Your task to perform on an android device: Go to sound settings Image 0: 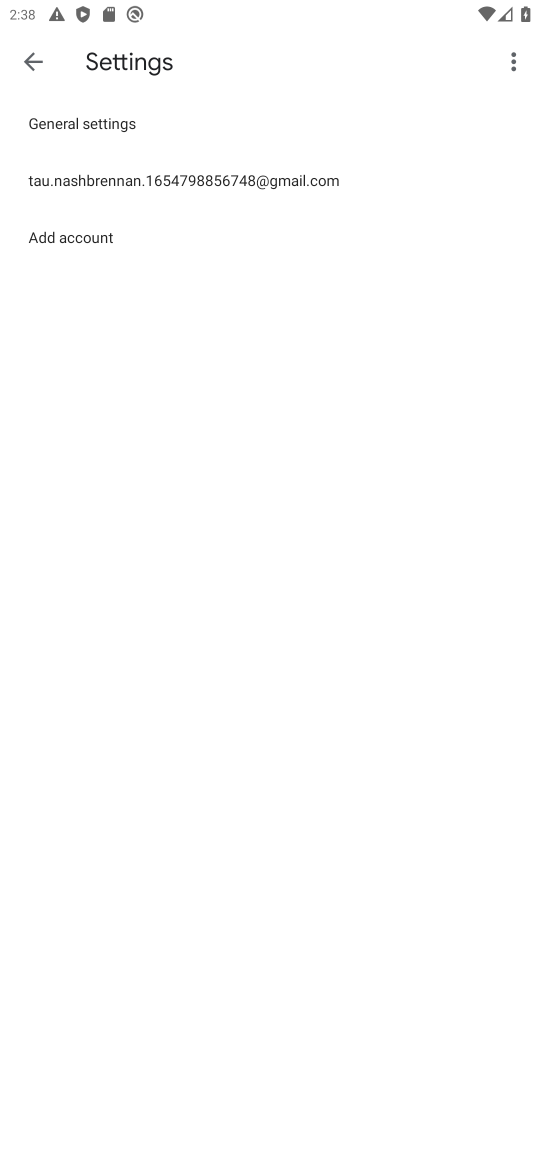
Step 0: press home button
Your task to perform on an android device: Go to sound settings Image 1: 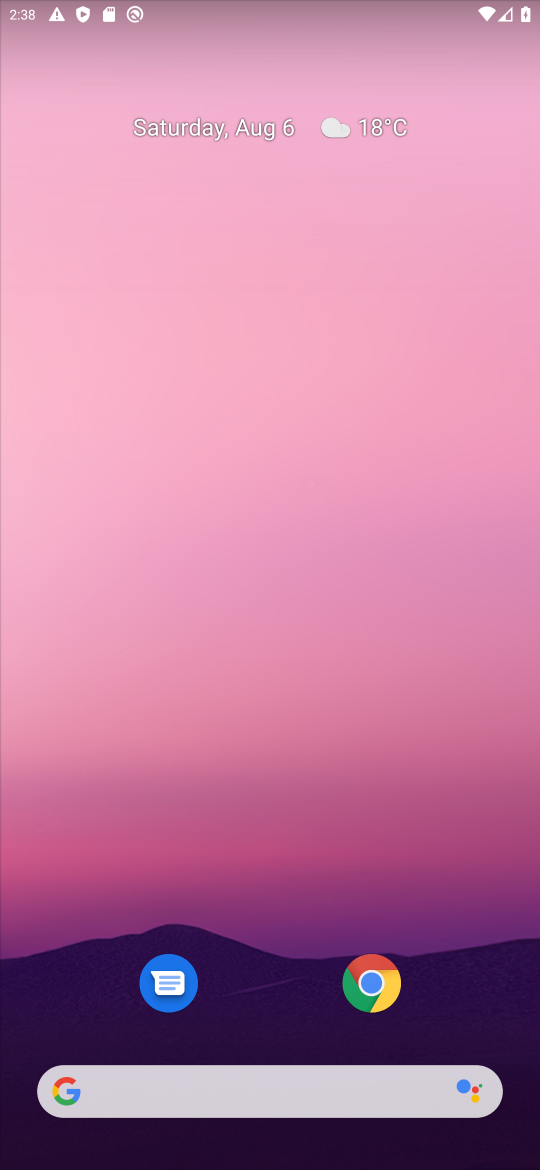
Step 1: drag from (273, 1079) to (183, 194)
Your task to perform on an android device: Go to sound settings Image 2: 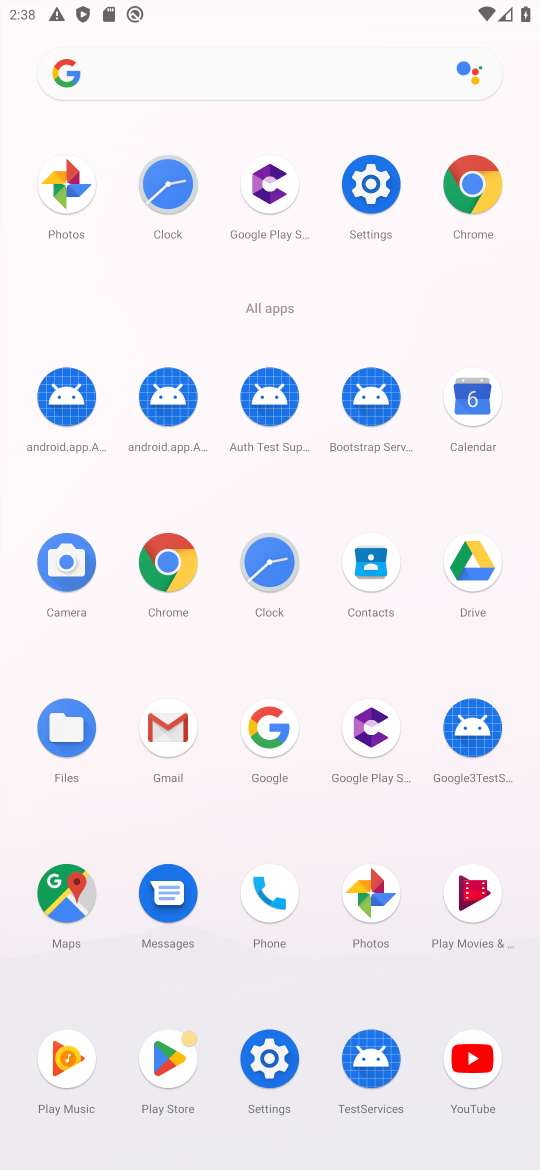
Step 2: click (384, 189)
Your task to perform on an android device: Go to sound settings Image 3: 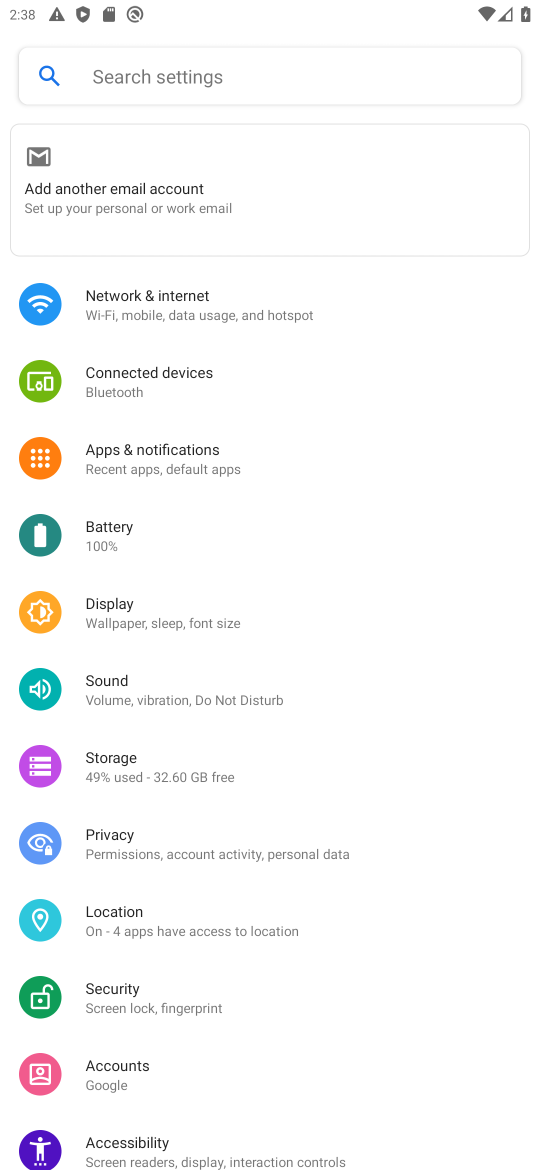
Step 3: click (122, 690)
Your task to perform on an android device: Go to sound settings Image 4: 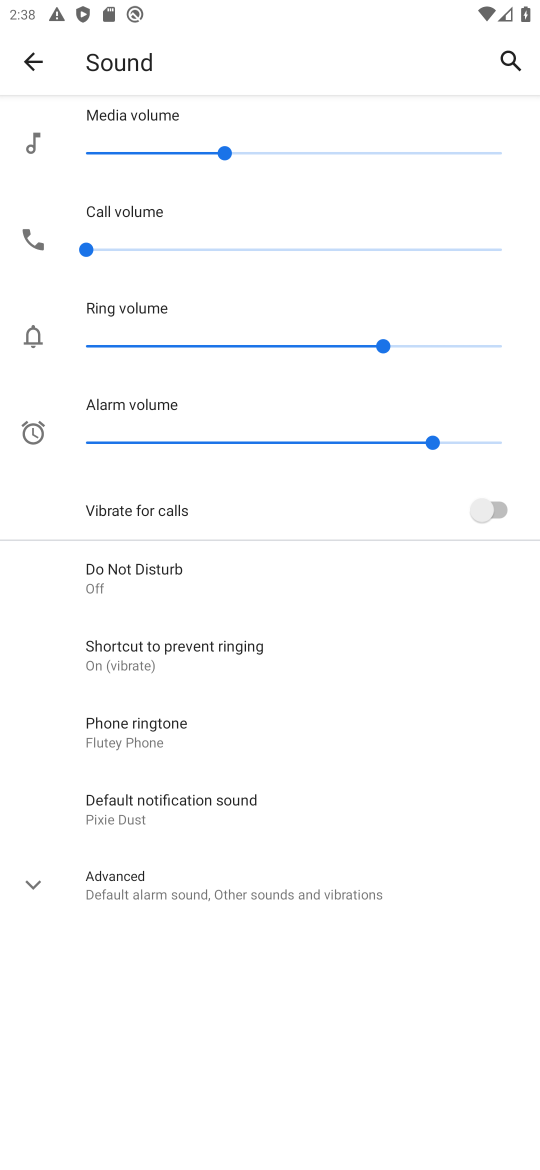
Step 4: task complete